Your task to perform on an android device: open app "Microsoft Authenticator" (install if not already installed), go to login, and select forgot password Image 0: 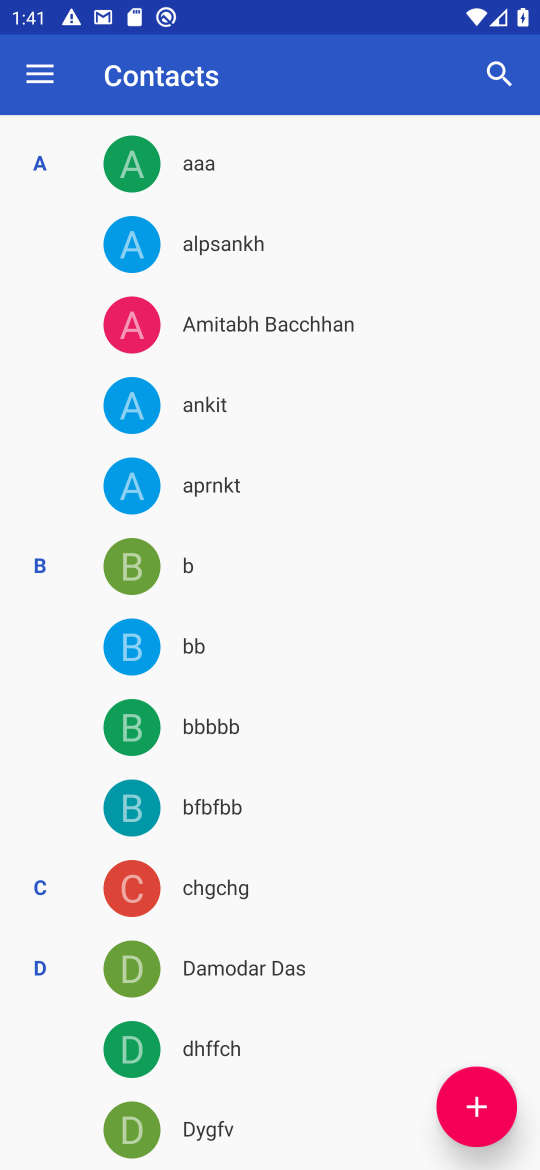
Step 0: press home button
Your task to perform on an android device: open app "Microsoft Authenticator" (install if not already installed), go to login, and select forgot password Image 1: 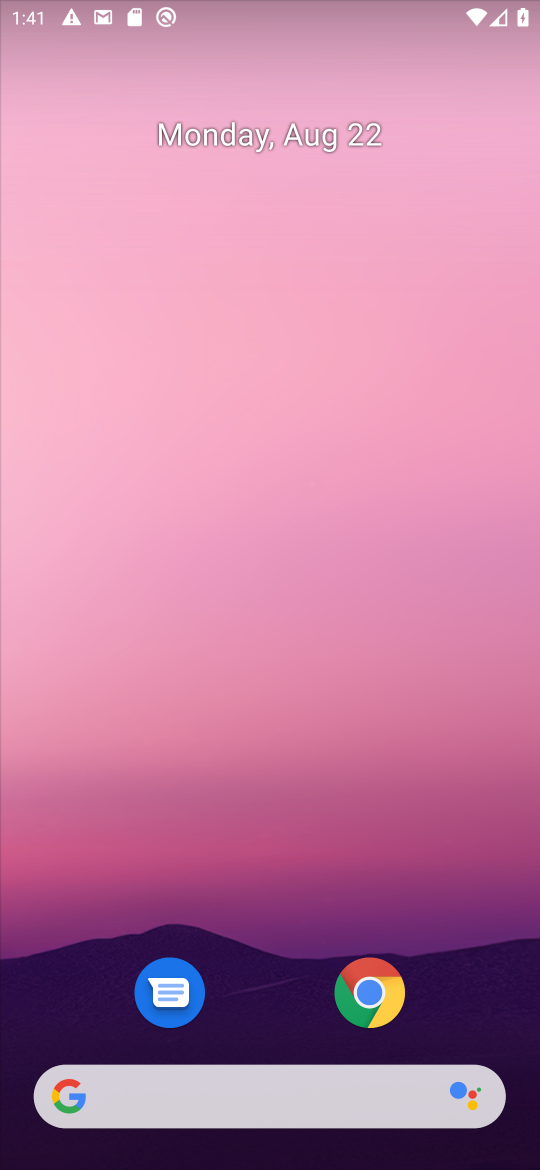
Step 1: drag from (259, 1057) to (349, 277)
Your task to perform on an android device: open app "Microsoft Authenticator" (install if not already installed), go to login, and select forgot password Image 2: 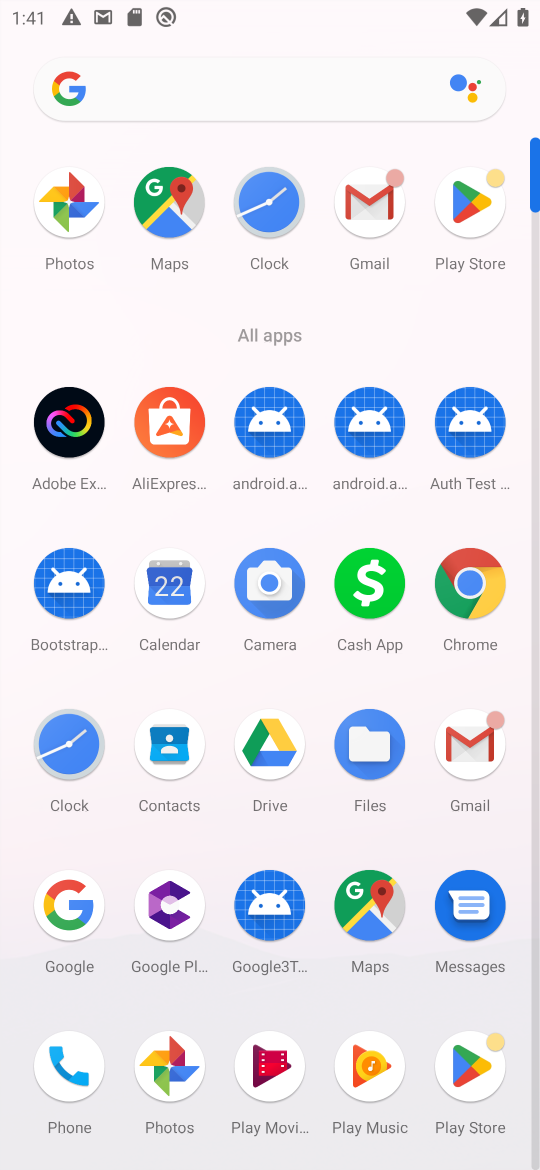
Step 2: click (471, 204)
Your task to perform on an android device: open app "Microsoft Authenticator" (install if not already installed), go to login, and select forgot password Image 3: 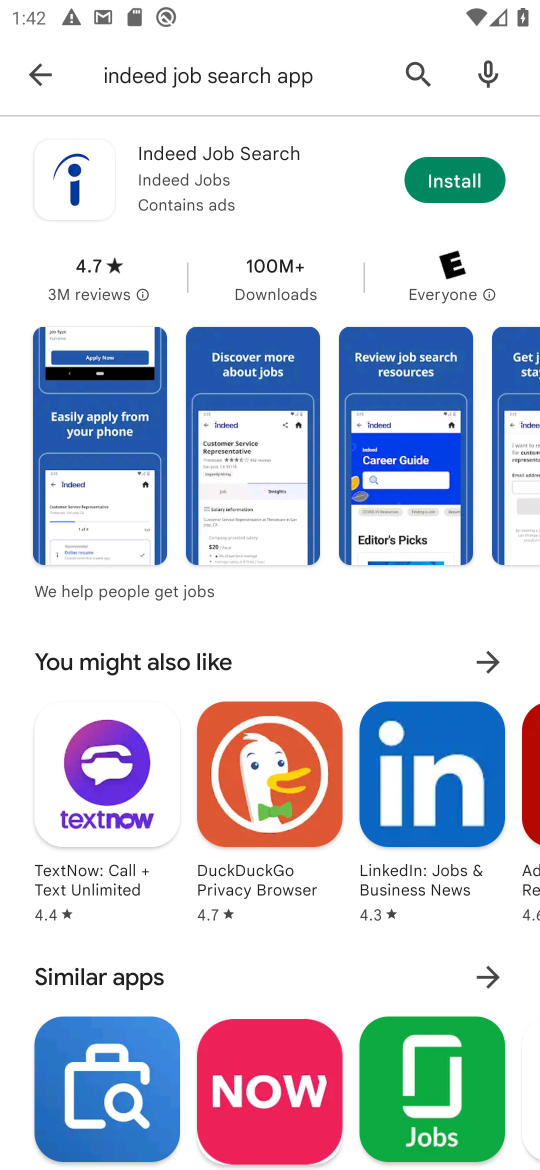
Step 3: click (408, 70)
Your task to perform on an android device: open app "Microsoft Authenticator" (install if not already installed), go to login, and select forgot password Image 4: 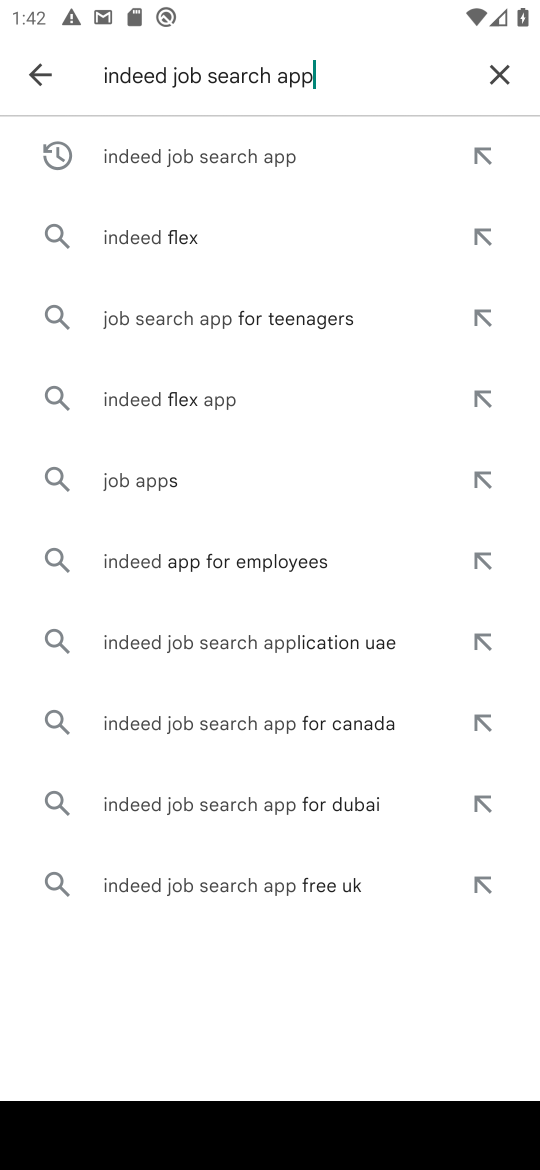
Step 4: click (498, 87)
Your task to perform on an android device: open app "Microsoft Authenticator" (install if not already installed), go to login, and select forgot password Image 5: 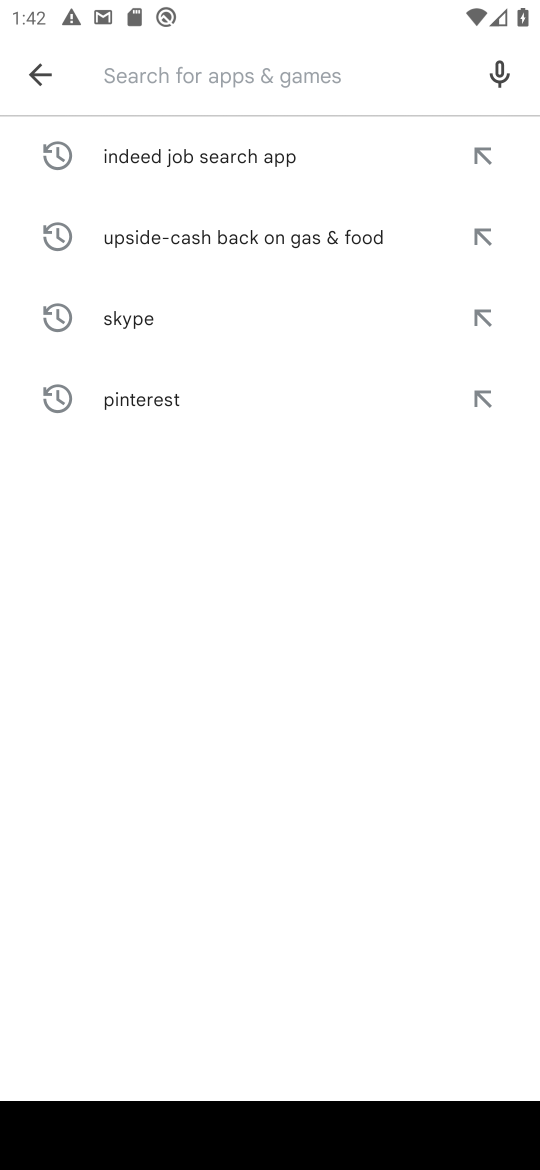
Step 5: click (182, 94)
Your task to perform on an android device: open app "Microsoft Authenticator" (install if not already installed), go to login, and select forgot password Image 6: 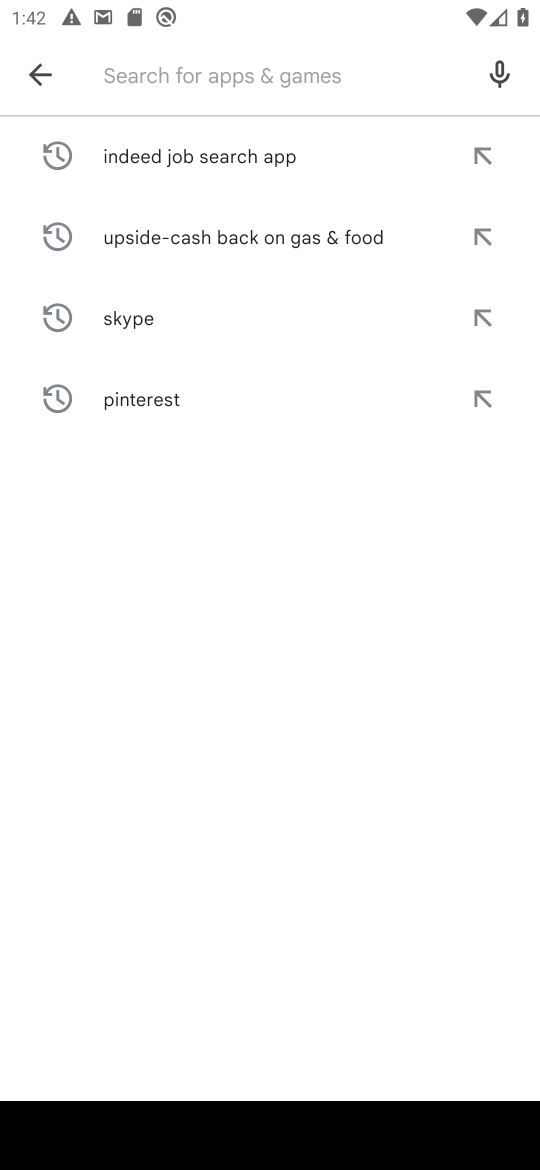
Step 6: type "Microsoft Authenticator"
Your task to perform on an android device: open app "Microsoft Authenticator" (install if not already installed), go to login, and select forgot password Image 7: 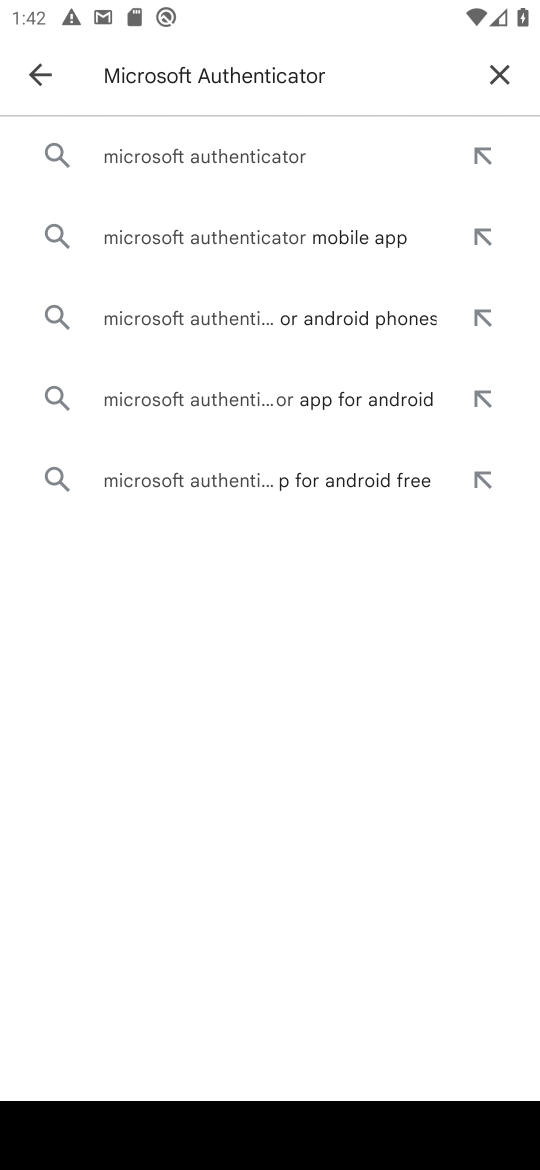
Step 7: click (262, 172)
Your task to perform on an android device: open app "Microsoft Authenticator" (install if not already installed), go to login, and select forgot password Image 8: 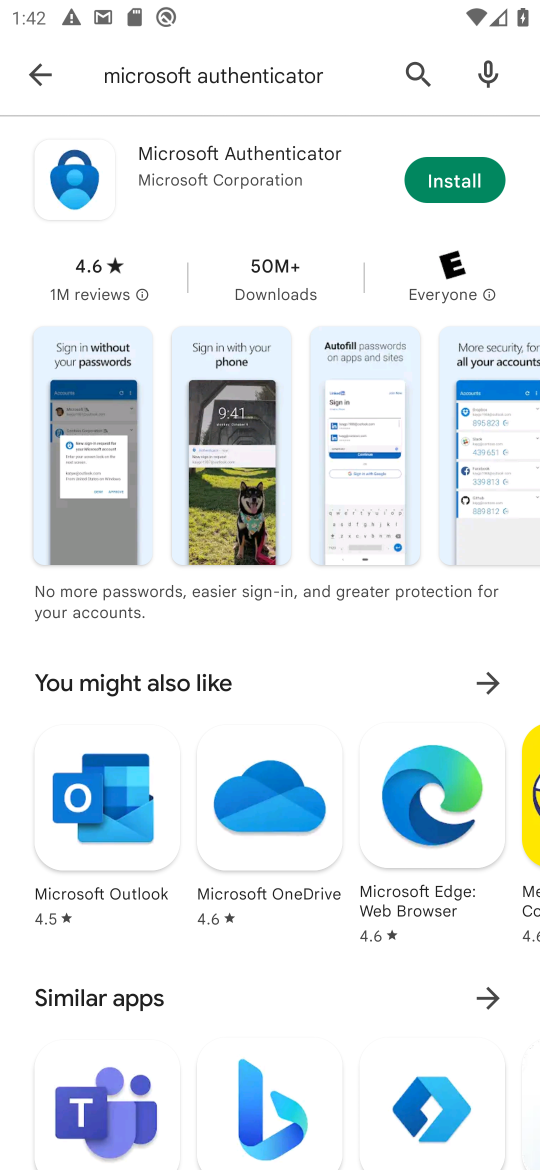
Step 8: click (460, 182)
Your task to perform on an android device: open app "Microsoft Authenticator" (install if not already installed), go to login, and select forgot password Image 9: 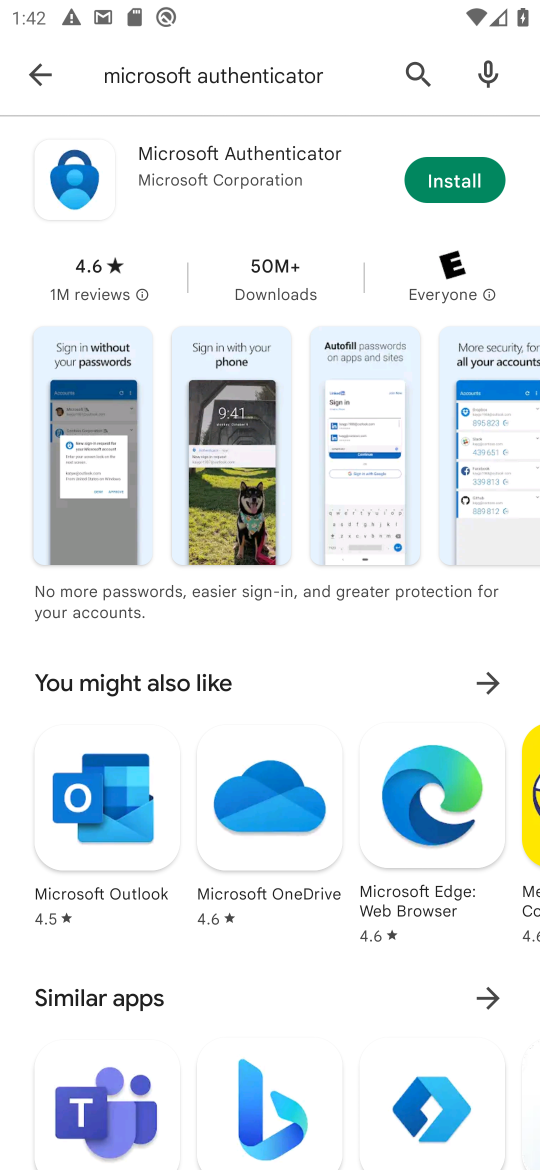
Step 9: task complete